Your task to perform on an android device: change text size in settings app Image 0: 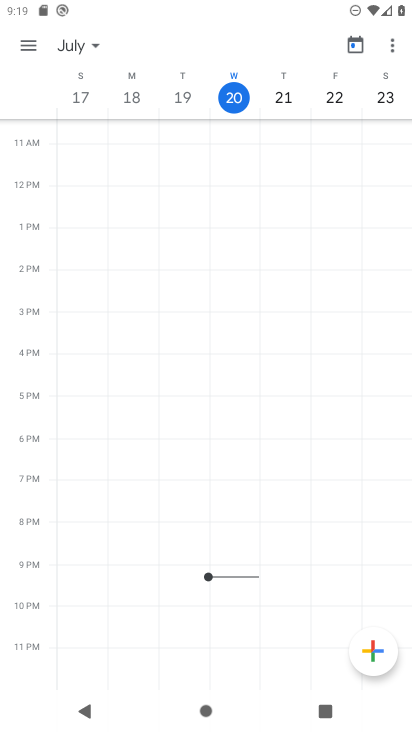
Step 0: press home button
Your task to perform on an android device: change text size in settings app Image 1: 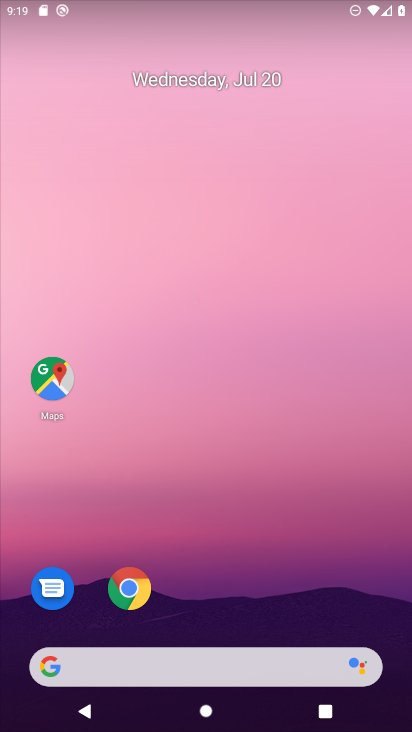
Step 1: drag from (198, 604) to (194, 181)
Your task to perform on an android device: change text size in settings app Image 2: 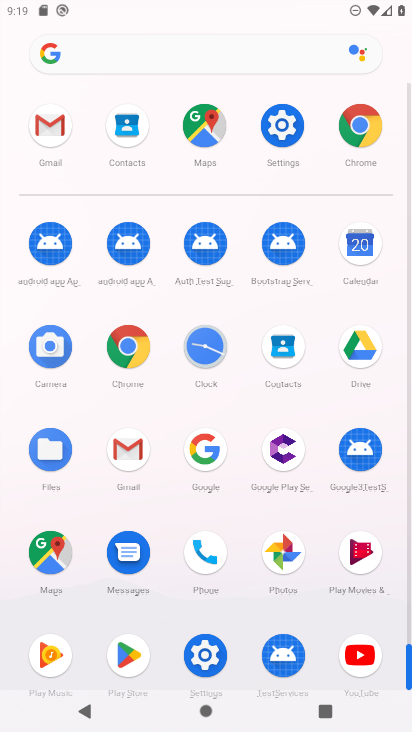
Step 2: click (287, 135)
Your task to perform on an android device: change text size in settings app Image 3: 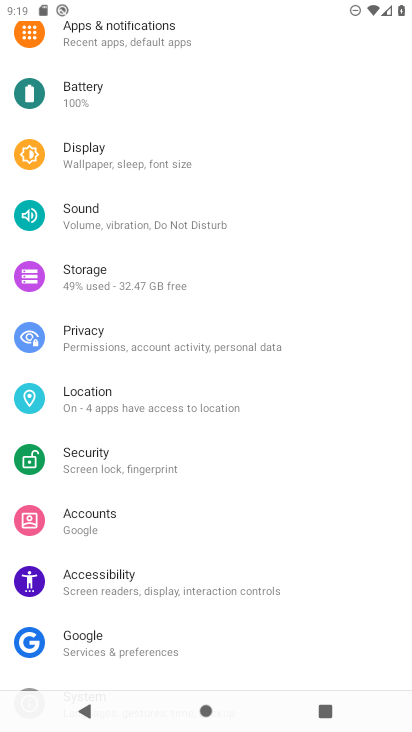
Step 3: drag from (162, 59) to (151, 577)
Your task to perform on an android device: change text size in settings app Image 4: 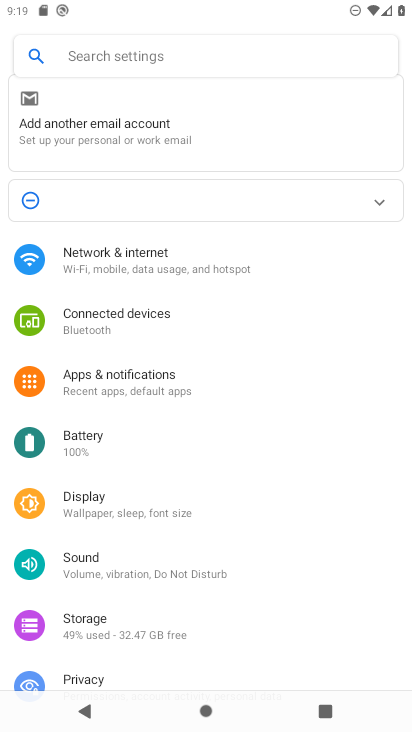
Step 4: click (153, 521)
Your task to perform on an android device: change text size in settings app Image 5: 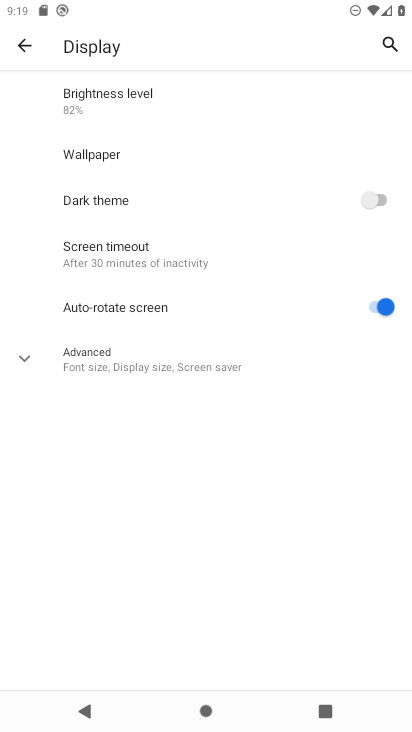
Step 5: click (164, 353)
Your task to perform on an android device: change text size in settings app Image 6: 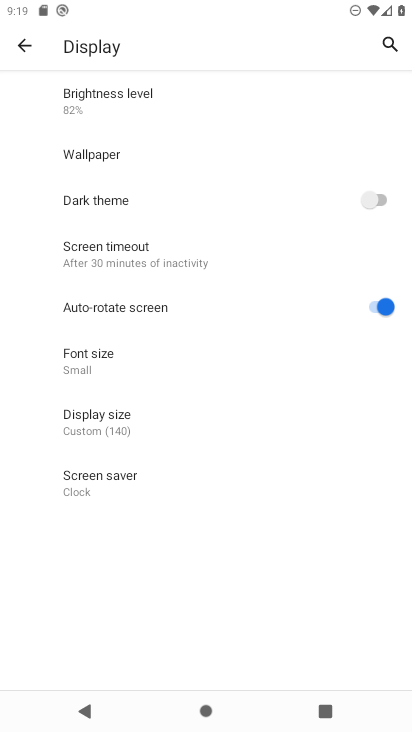
Step 6: click (151, 365)
Your task to perform on an android device: change text size in settings app Image 7: 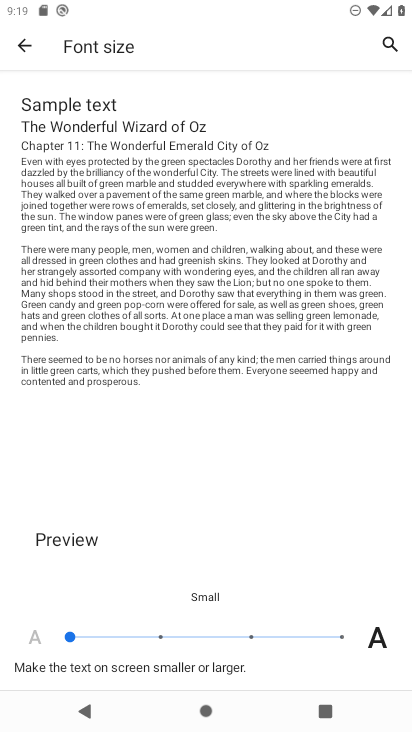
Step 7: click (156, 627)
Your task to perform on an android device: change text size in settings app Image 8: 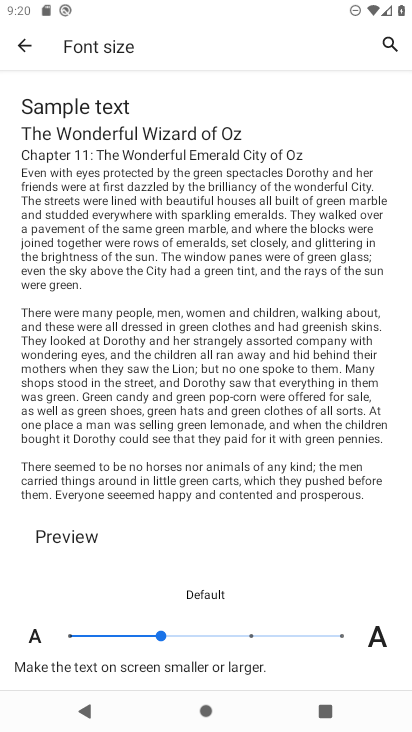
Step 8: task complete